Your task to perform on an android device: Find coffee shops on Maps Image 0: 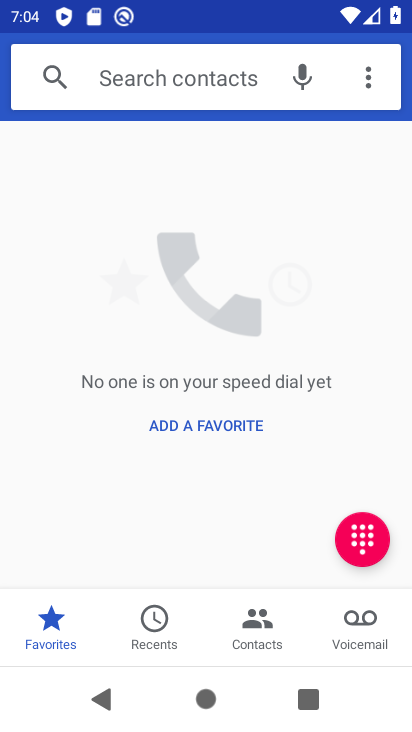
Step 0: press home button
Your task to perform on an android device: Find coffee shops on Maps Image 1: 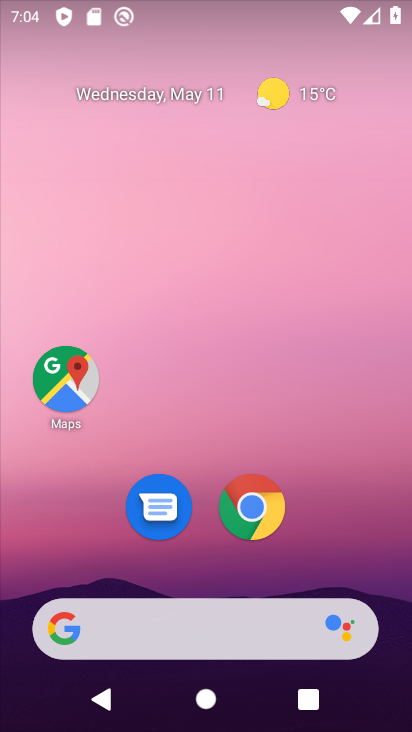
Step 1: drag from (263, 664) to (302, 184)
Your task to perform on an android device: Find coffee shops on Maps Image 2: 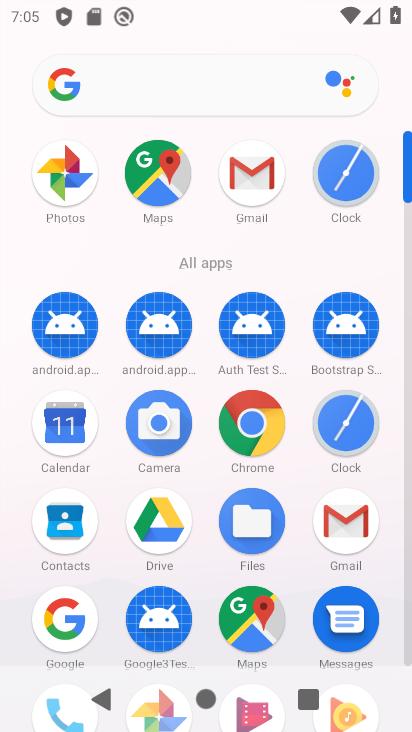
Step 2: click (259, 607)
Your task to perform on an android device: Find coffee shops on Maps Image 3: 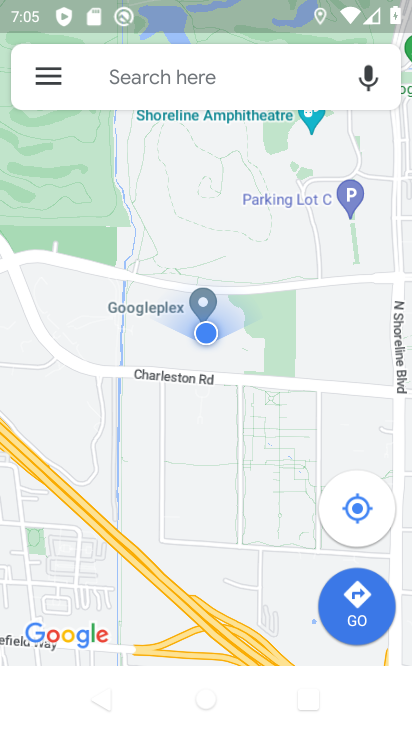
Step 3: click (160, 80)
Your task to perform on an android device: Find coffee shops on Maps Image 4: 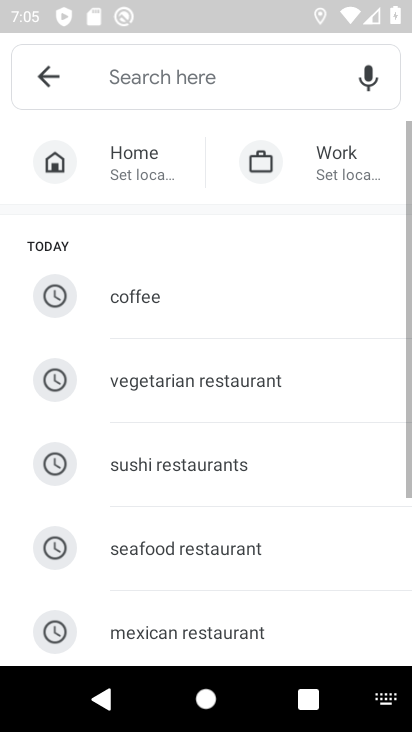
Step 4: click (390, 695)
Your task to perform on an android device: Find coffee shops on Maps Image 5: 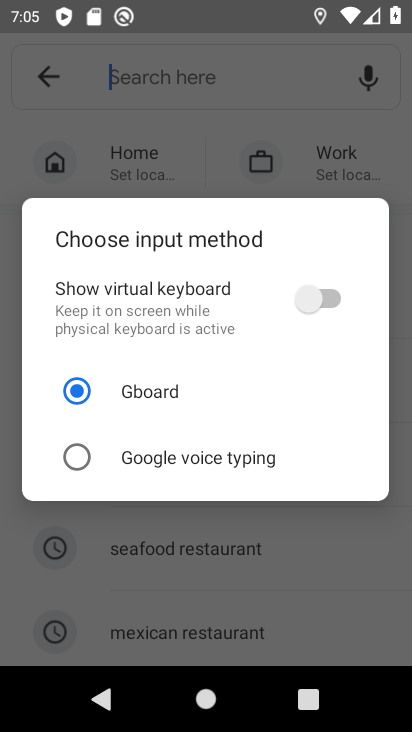
Step 5: click (330, 299)
Your task to perform on an android device: Find coffee shops on Maps Image 6: 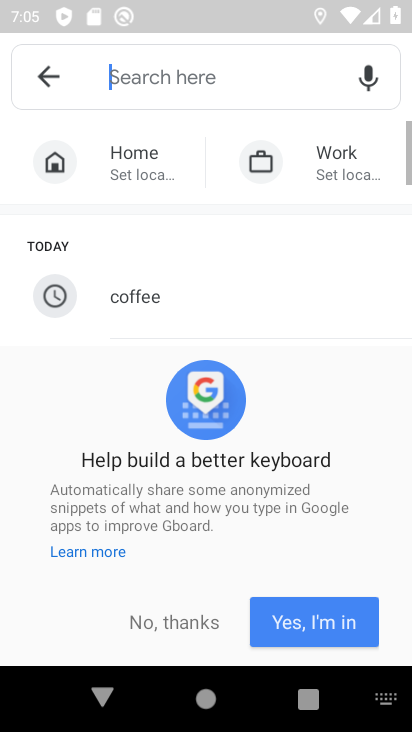
Step 6: click (161, 298)
Your task to perform on an android device: Find coffee shops on Maps Image 7: 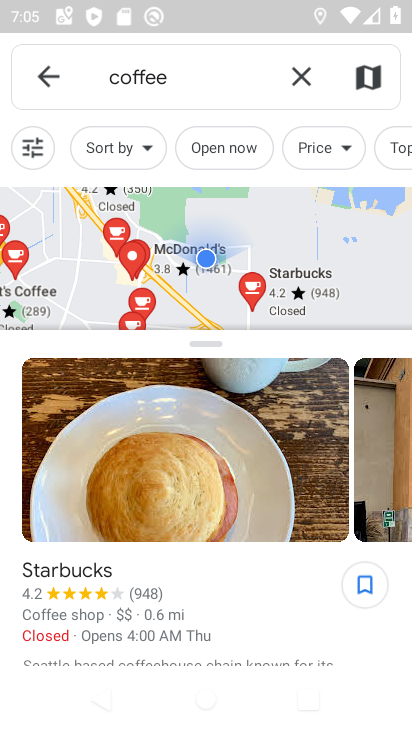
Step 7: click (197, 298)
Your task to perform on an android device: Find coffee shops on Maps Image 8: 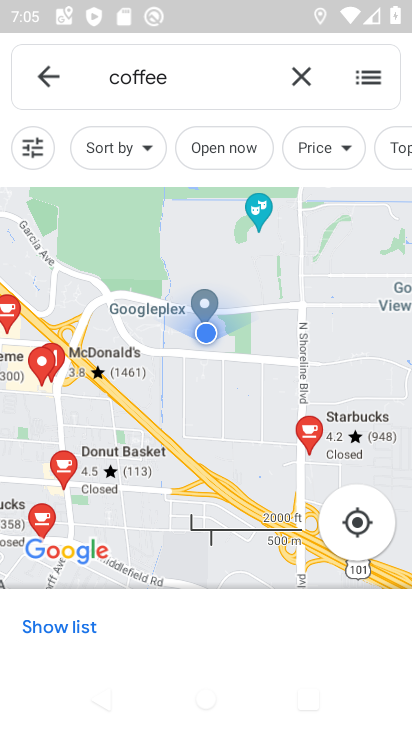
Step 8: task complete